Your task to perform on an android device: snooze an email in the gmail app Image 0: 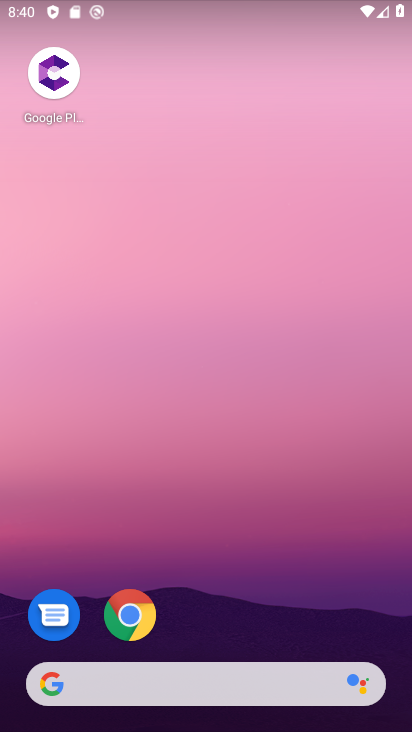
Step 0: drag from (267, 405) to (248, 40)
Your task to perform on an android device: snooze an email in the gmail app Image 1: 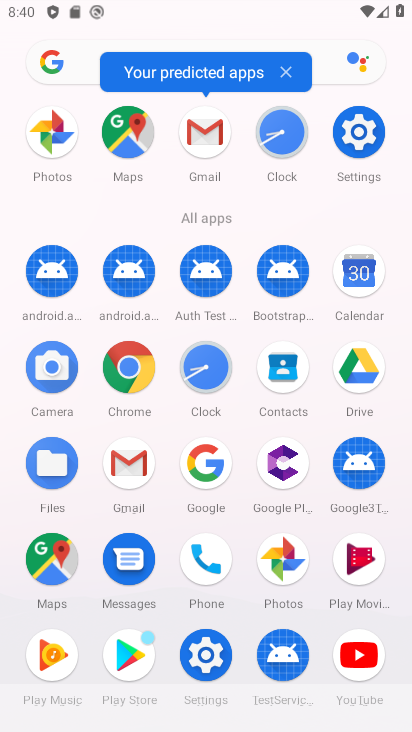
Step 1: click (131, 462)
Your task to perform on an android device: snooze an email in the gmail app Image 2: 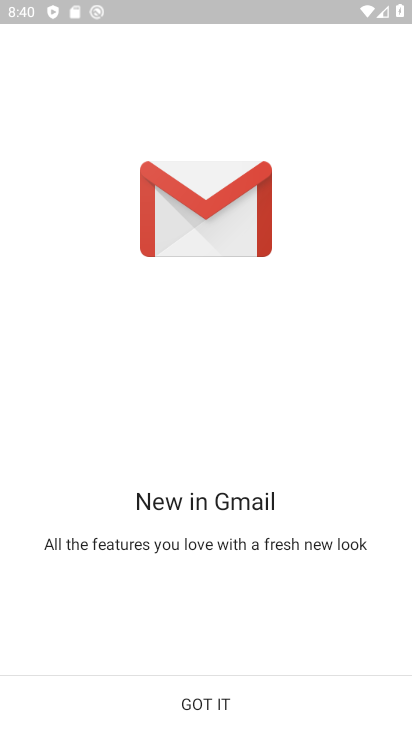
Step 2: click (257, 711)
Your task to perform on an android device: snooze an email in the gmail app Image 3: 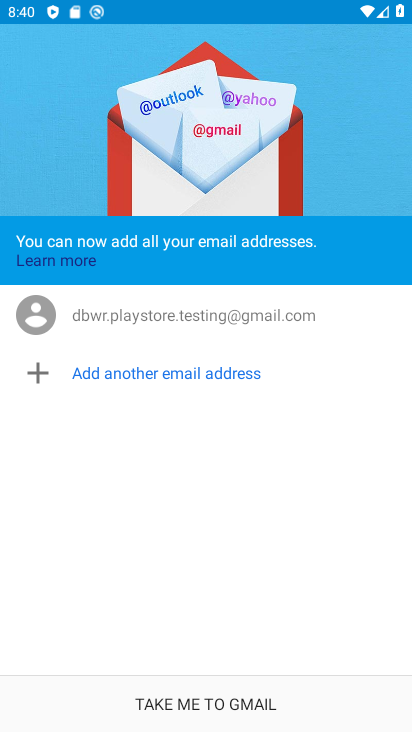
Step 3: click (246, 714)
Your task to perform on an android device: snooze an email in the gmail app Image 4: 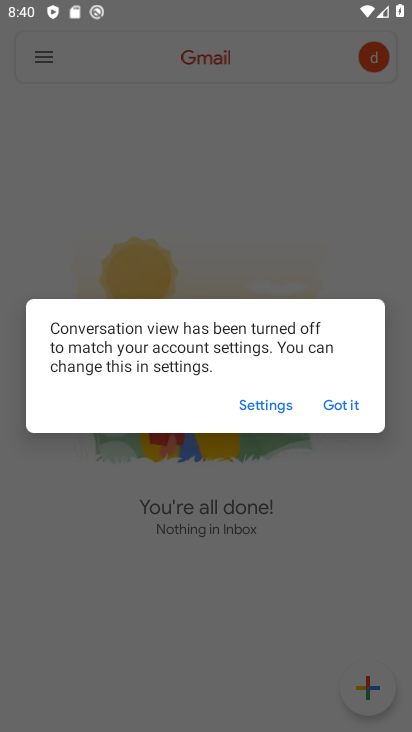
Step 4: click (331, 411)
Your task to perform on an android device: snooze an email in the gmail app Image 5: 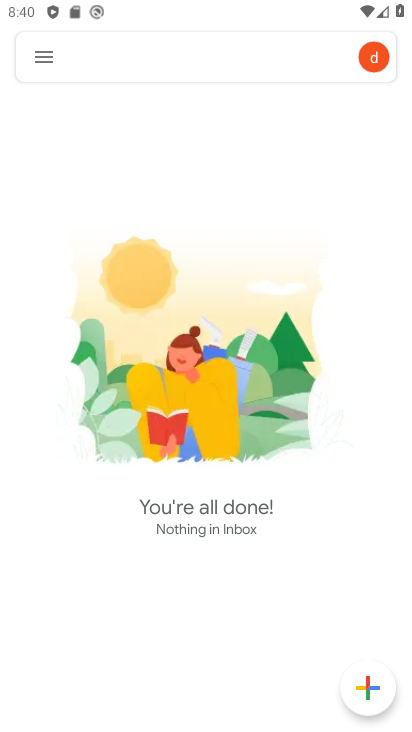
Step 5: click (43, 53)
Your task to perform on an android device: snooze an email in the gmail app Image 6: 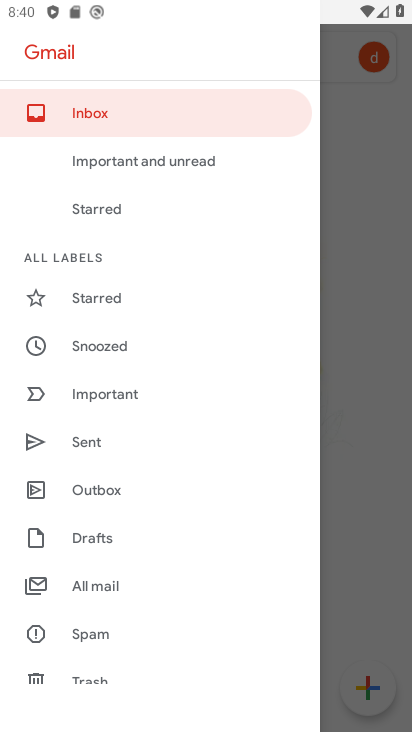
Step 6: click (368, 389)
Your task to perform on an android device: snooze an email in the gmail app Image 7: 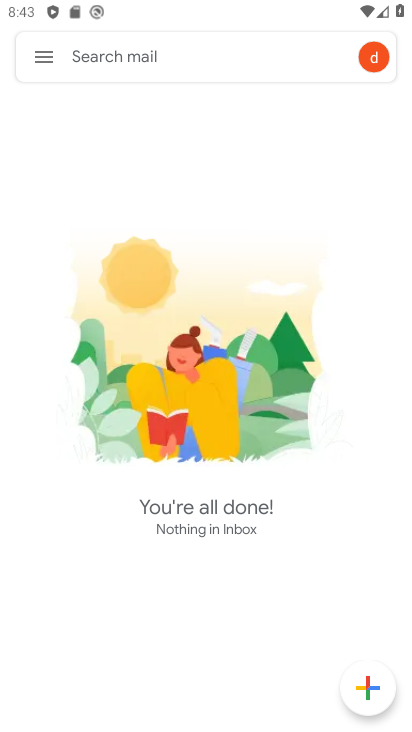
Step 7: task complete